Your task to perform on an android device: Go to Google Image 0: 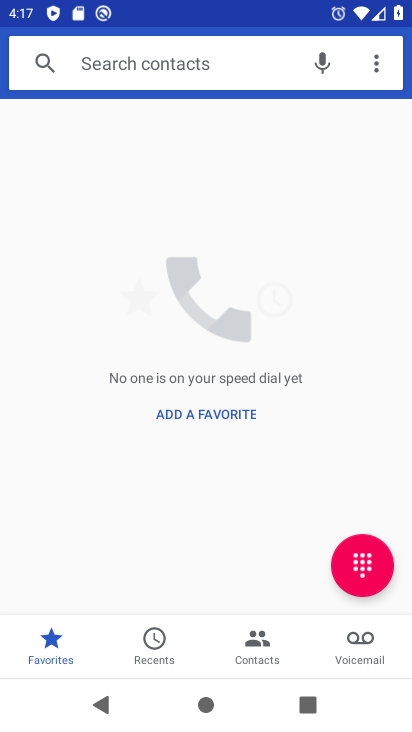
Step 0: press home button
Your task to perform on an android device: Go to Google Image 1: 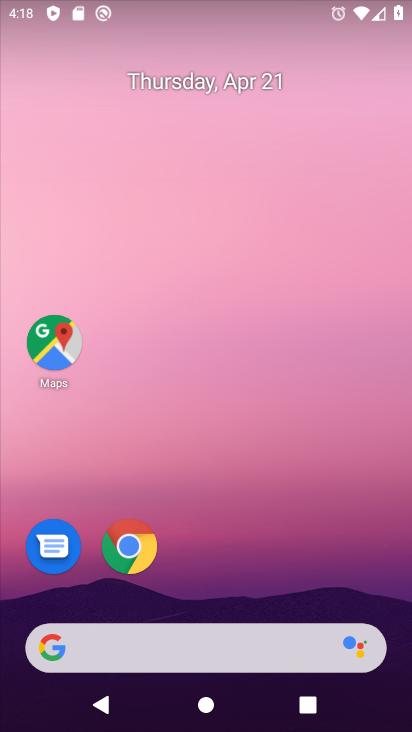
Step 1: drag from (271, 566) to (310, 143)
Your task to perform on an android device: Go to Google Image 2: 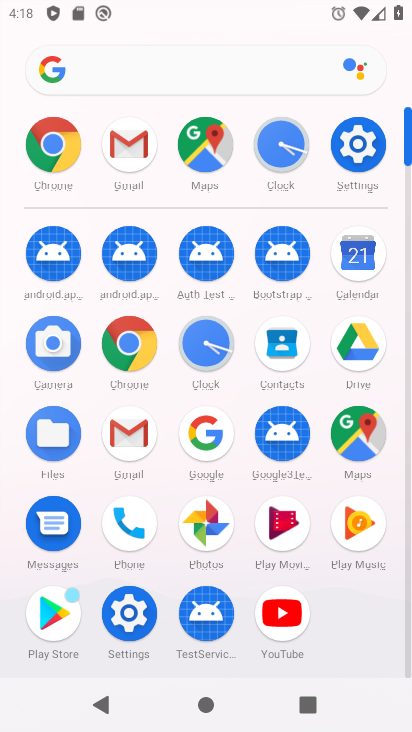
Step 2: click (201, 435)
Your task to perform on an android device: Go to Google Image 3: 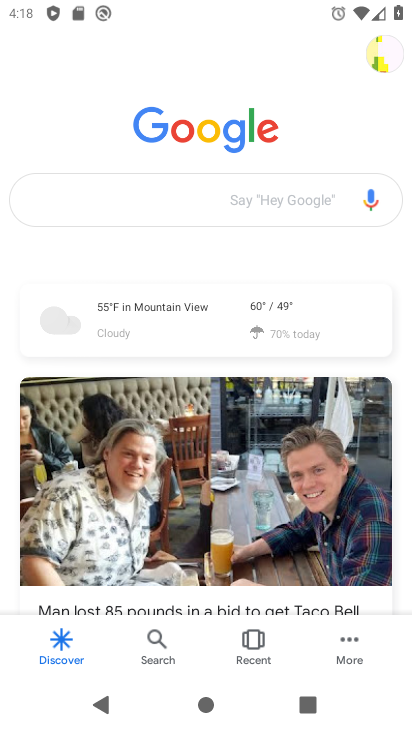
Step 3: task complete